Your task to perform on an android device: change the clock display to show seconds Image 0: 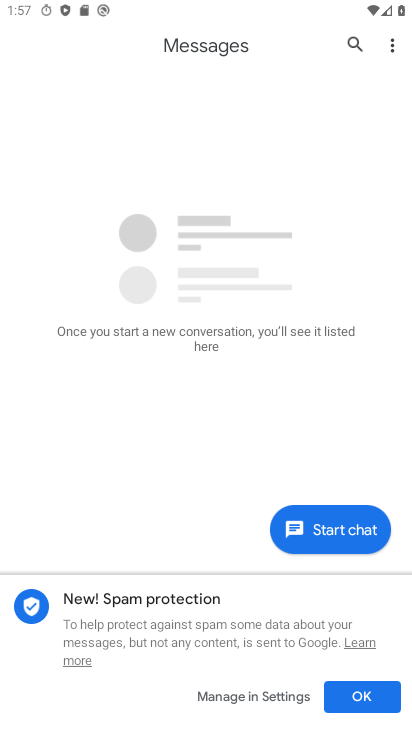
Step 0: press home button
Your task to perform on an android device: change the clock display to show seconds Image 1: 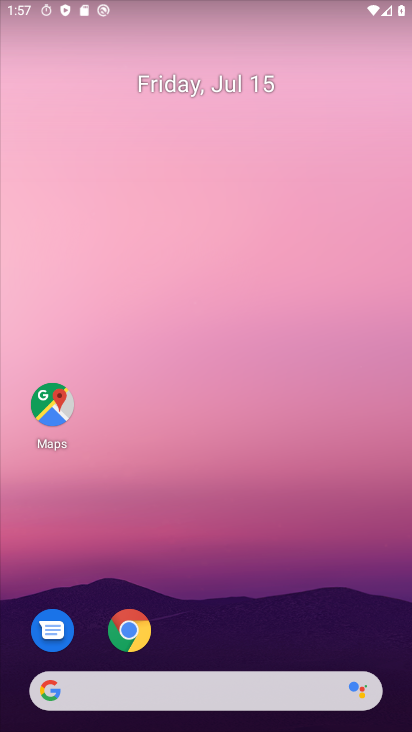
Step 1: drag from (273, 628) to (221, 157)
Your task to perform on an android device: change the clock display to show seconds Image 2: 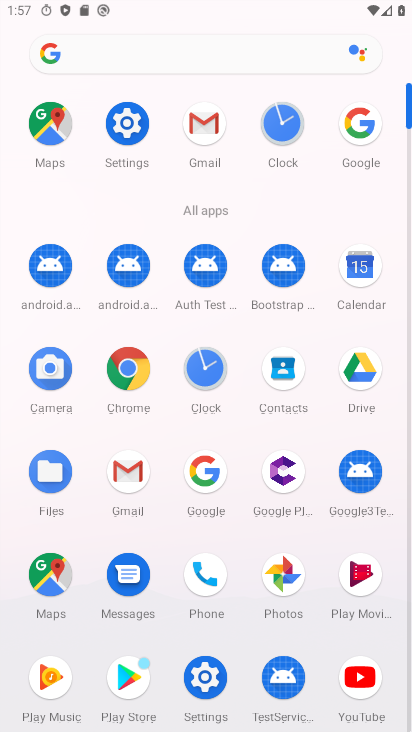
Step 2: click (295, 137)
Your task to perform on an android device: change the clock display to show seconds Image 3: 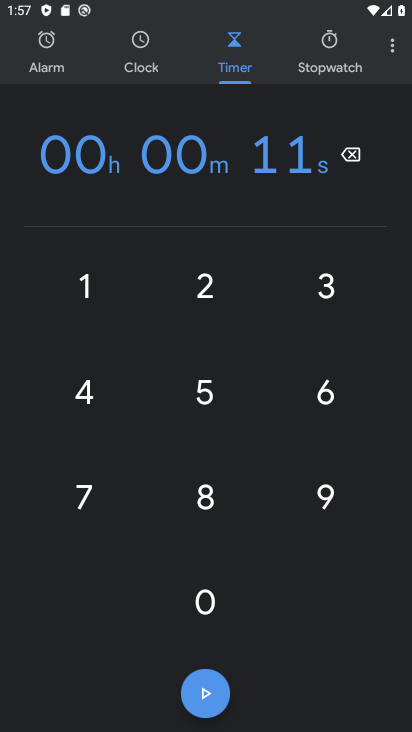
Step 3: click (395, 51)
Your task to perform on an android device: change the clock display to show seconds Image 4: 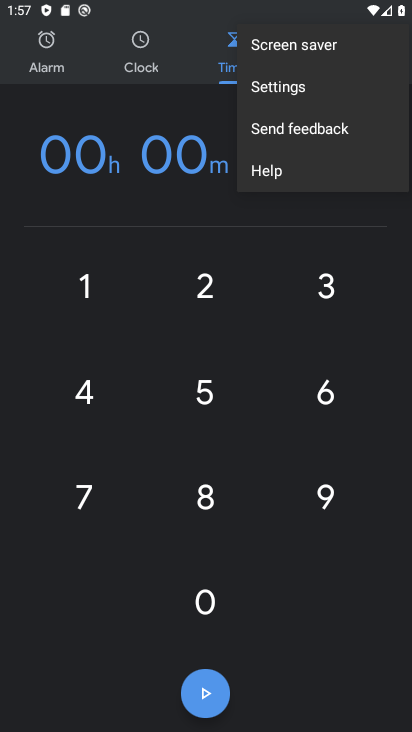
Step 4: click (338, 88)
Your task to perform on an android device: change the clock display to show seconds Image 5: 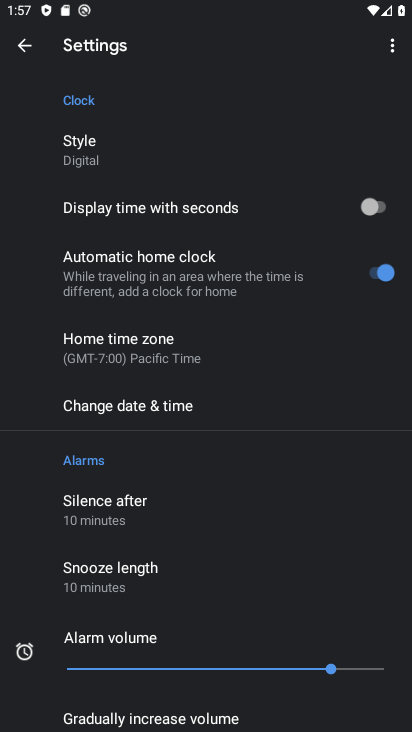
Step 5: click (373, 198)
Your task to perform on an android device: change the clock display to show seconds Image 6: 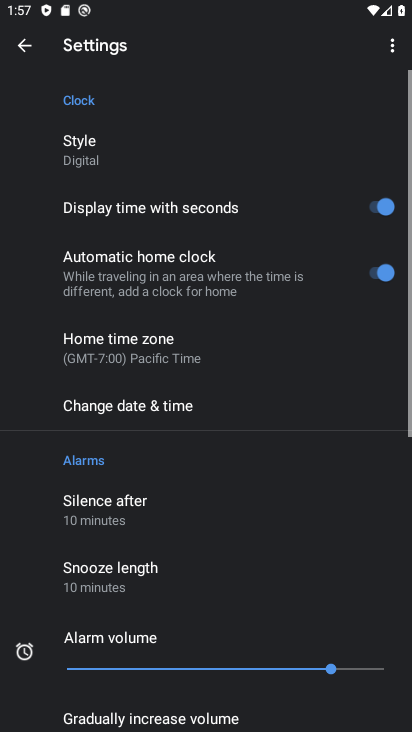
Step 6: task complete